Your task to perform on an android device: turn on airplane mode Image 0: 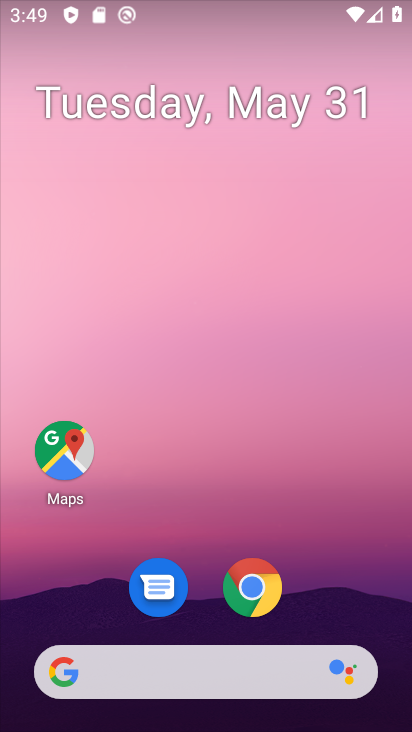
Step 0: drag from (221, 325) to (303, 156)
Your task to perform on an android device: turn on airplane mode Image 1: 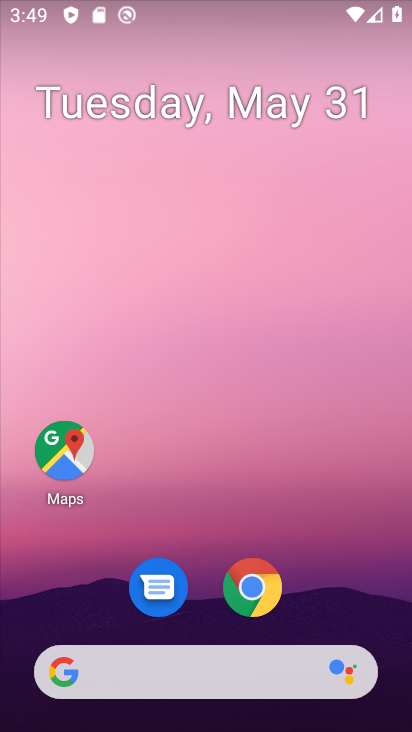
Step 1: drag from (110, 514) to (251, 73)
Your task to perform on an android device: turn on airplane mode Image 2: 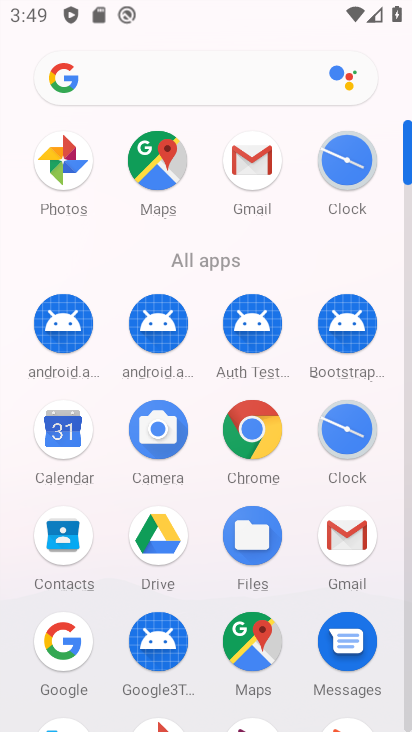
Step 2: drag from (189, 523) to (296, 224)
Your task to perform on an android device: turn on airplane mode Image 3: 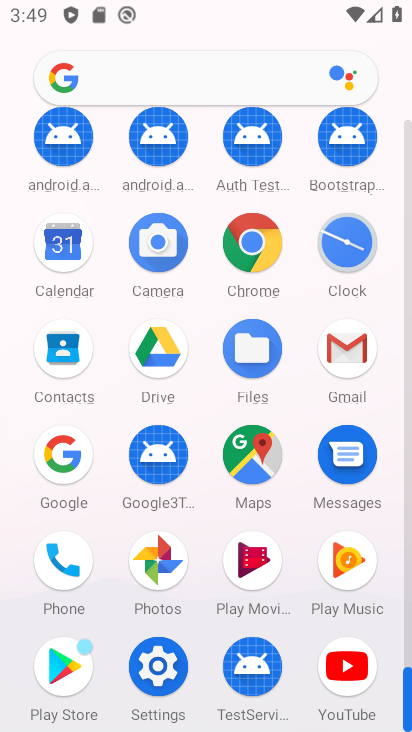
Step 3: click (151, 661)
Your task to perform on an android device: turn on airplane mode Image 4: 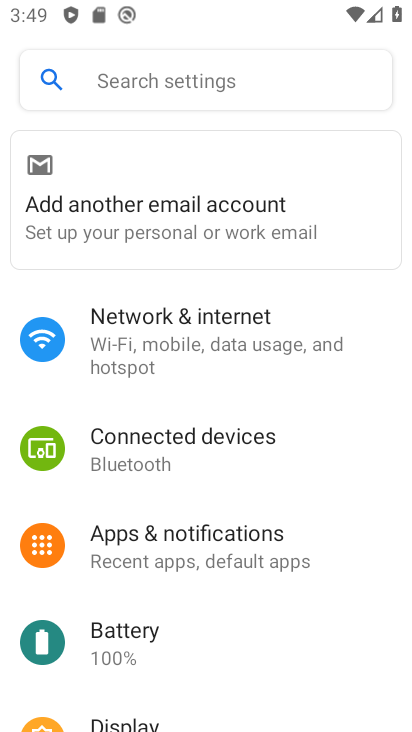
Step 4: click (247, 358)
Your task to perform on an android device: turn on airplane mode Image 5: 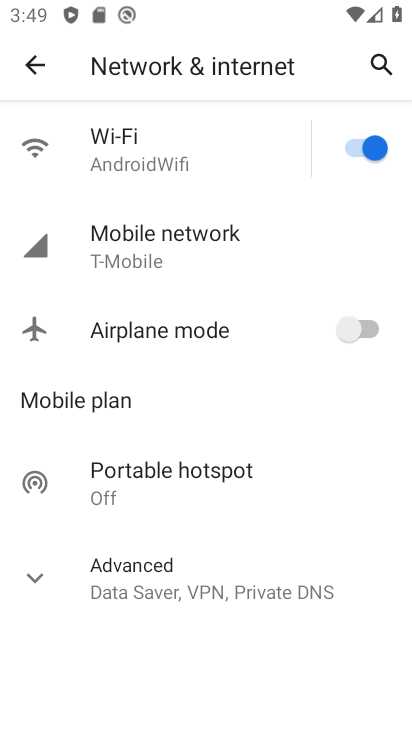
Step 5: click (366, 324)
Your task to perform on an android device: turn on airplane mode Image 6: 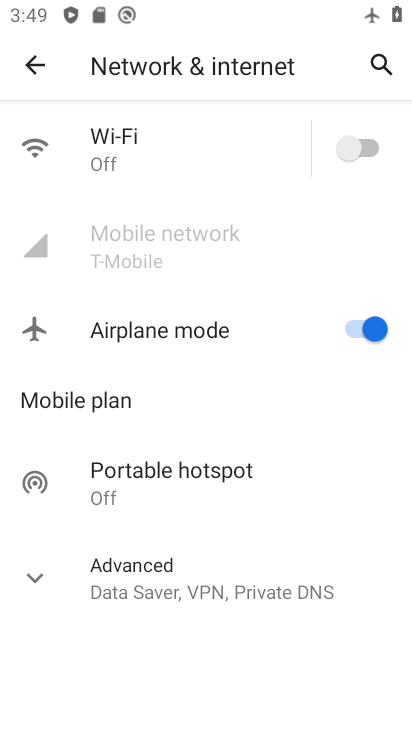
Step 6: task complete